Your task to perform on an android device: find snoozed emails in the gmail app Image 0: 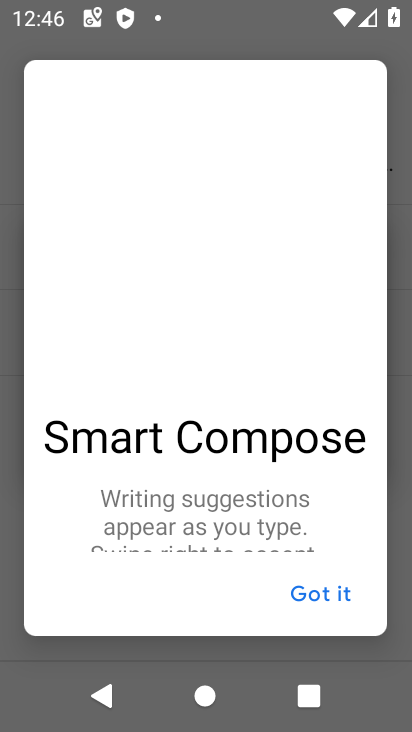
Step 0: press home button
Your task to perform on an android device: find snoozed emails in the gmail app Image 1: 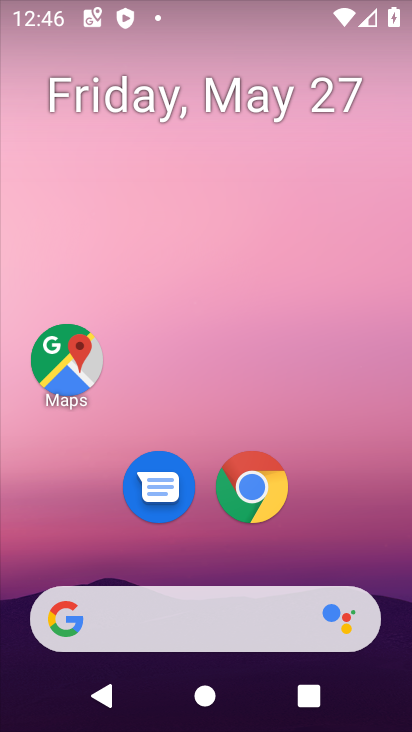
Step 1: drag from (212, 559) to (280, 140)
Your task to perform on an android device: find snoozed emails in the gmail app Image 2: 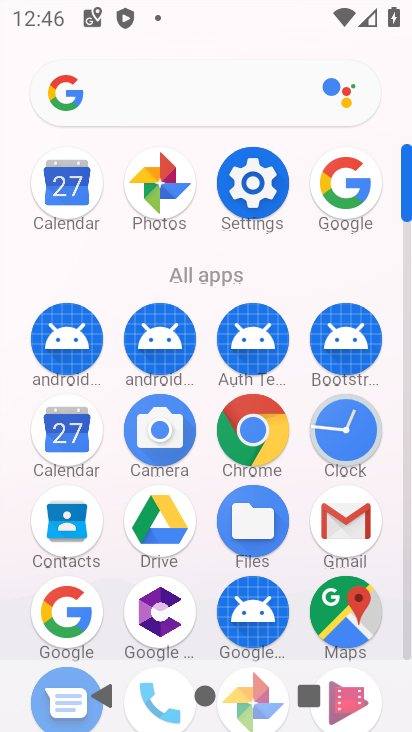
Step 2: click (344, 528)
Your task to perform on an android device: find snoozed emails in the gmail app Image 3: 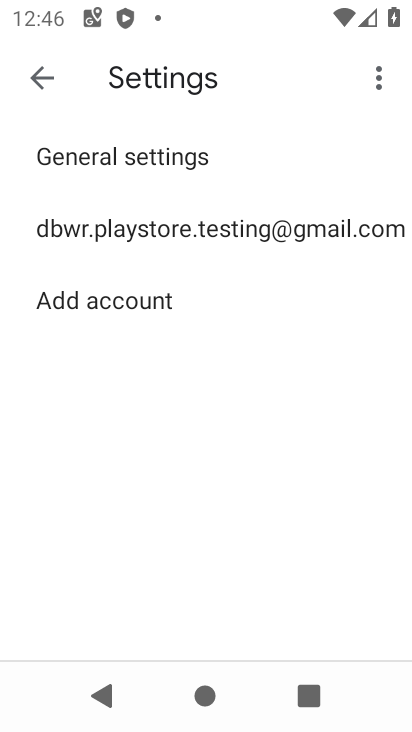
Step 3: click (129, 222)
Your task to perform on an android device: find snoozed emails in the gmail app Image 4: 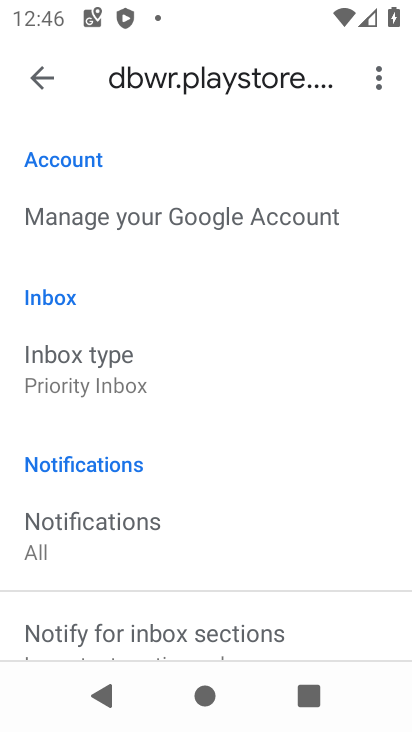
Step 4: press back button
Your task to perform on an android device: find snoozed emails in the gmail app Image 5: 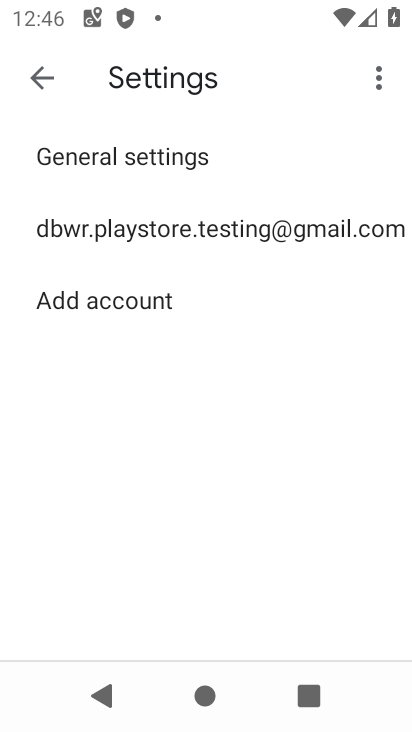
Step 5: press back button
Your task to perform on an android device: find snoozed emails in the gmail app Image 6: 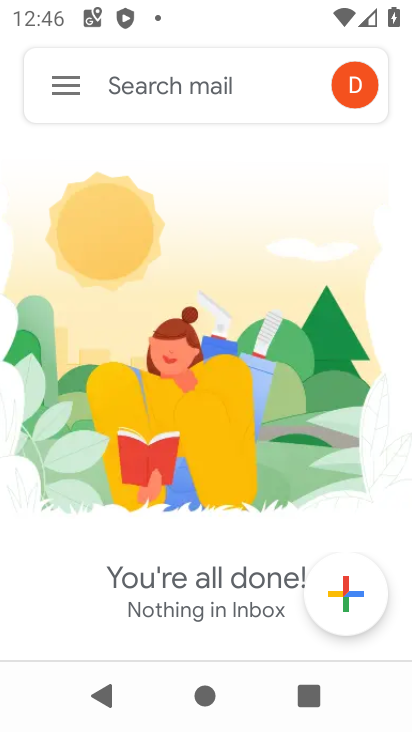
Step 6: click (68, 90)
Your task to perform on an android device: find snoozed emails in the gmail app Image 7: 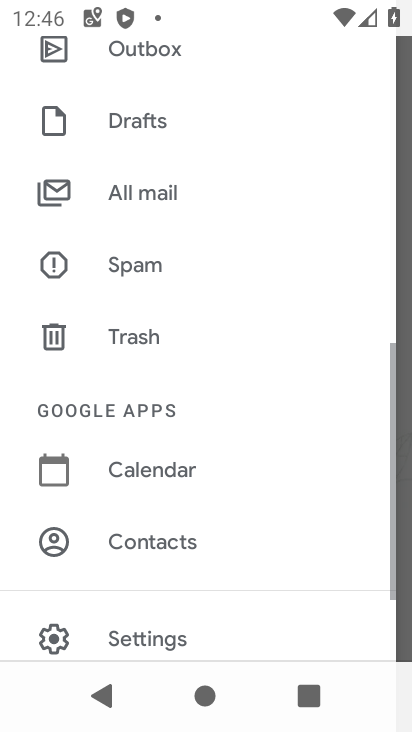
Step 7: drag from (224, 166) to (279, 493)
Your task to perform on an android device: find snoozed emails in the gmail app Image 8: 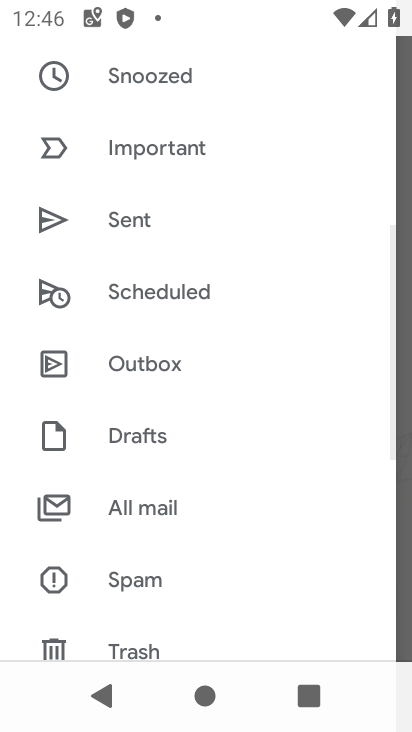
Step 8: drag from (190, 116) to (282, 392)
Your task to perform on an android device: find snoozed emails in the gmail app Image 9: 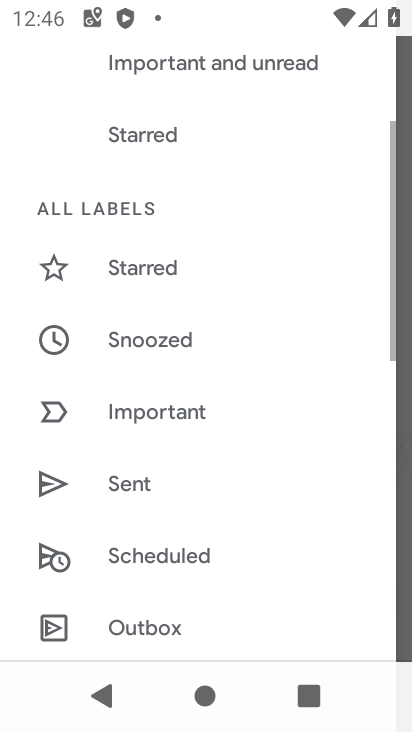
Step 9: drag from (140, 104) to (215, 160)
Your task to perform on an android device: find snoozed emails in the gmail app Image 10: 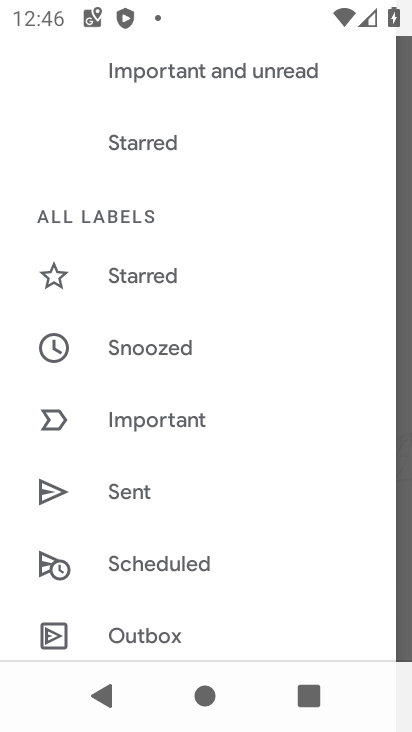
Step 10: click (129, 345)
Your task to perform on an android device: find snoozed emails in the gmail app Image 11: 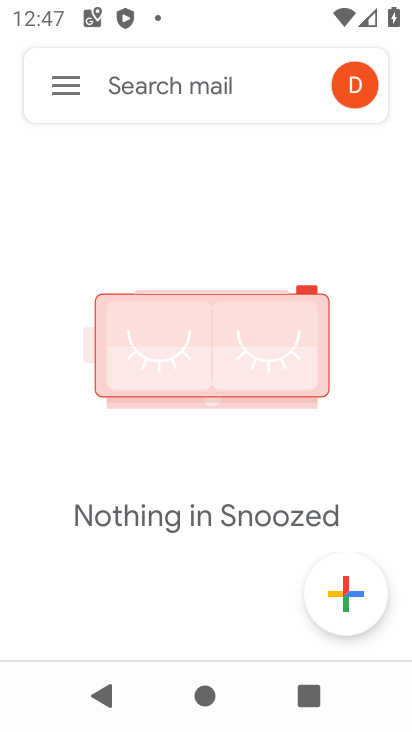
Step 11: task complete